Your task to perform on an android device: Open Google Maps and go to "Timeline" Image 0: 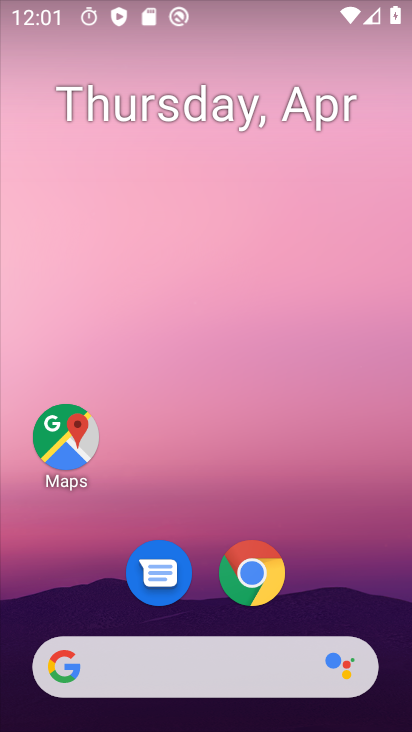
Step 0: click (339, 253)
Your task to perform on an android device: Open Google Maps and go to "Timeline" Image 1: 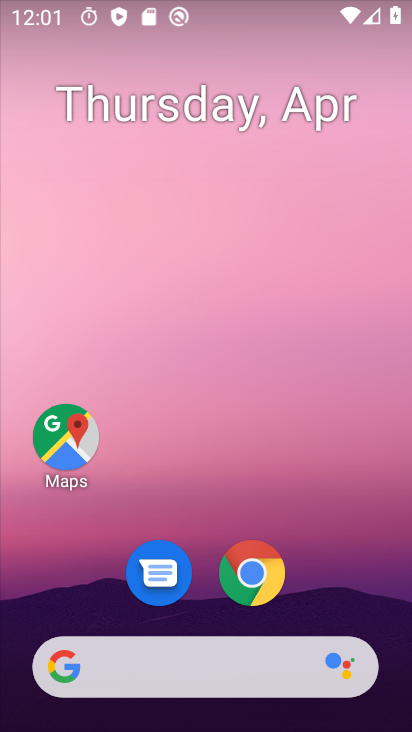
Step 1: click (60, 439)
Your task to perform on an android device: Open Google Maps and go to "Timeline" Image 2: 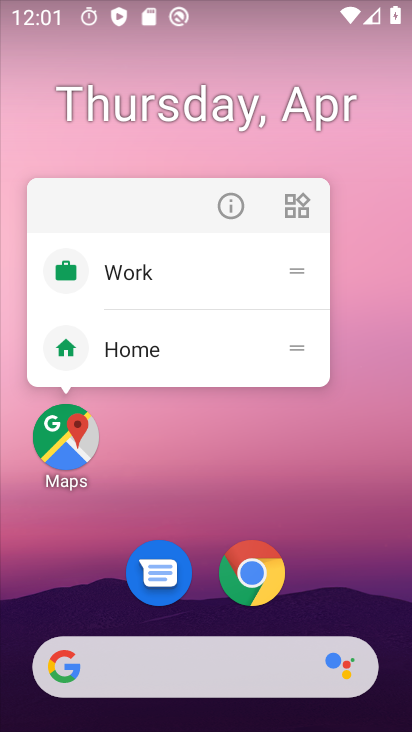
Step 2: click (60, 439)
Your task to perform on an android device: Open Google Maps and go to "Timeline" Image 3: 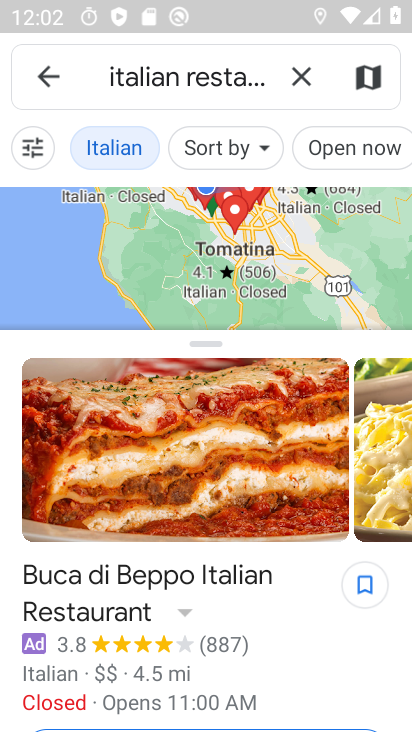
Step 3: click (44, 72)
Your task to perform on an android device: Open Google Maps and go to "Timeline" Image 4: 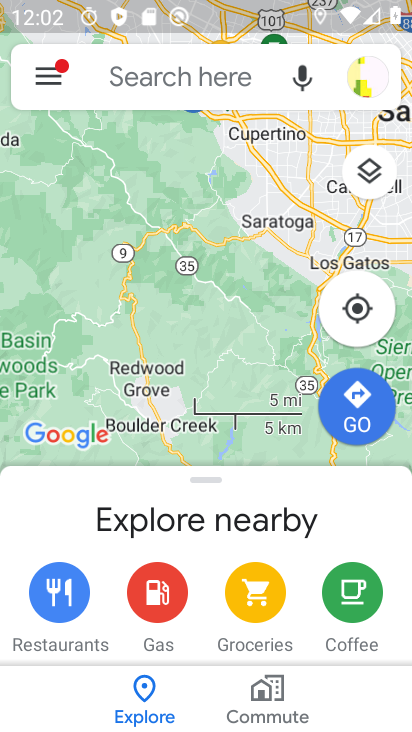
Step 4: click (44, 72)
Your task to perform on an android device: Open Google Maps and go to "Timeline" Image 5: 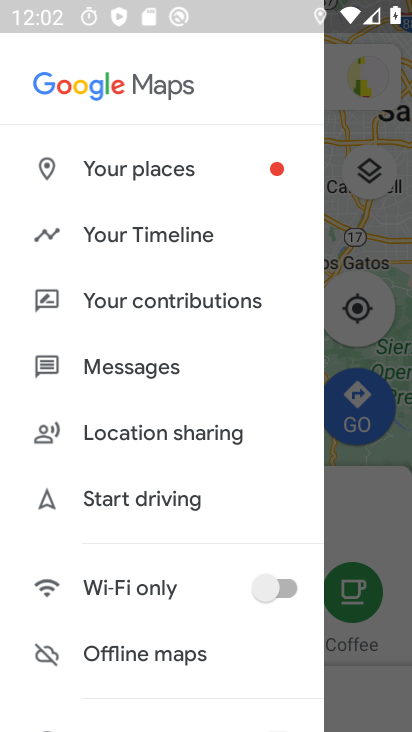
Step 5: click (146, 236)
Your task to perform on an android device: Open Google Maps and go to "Timeline" Image 6: 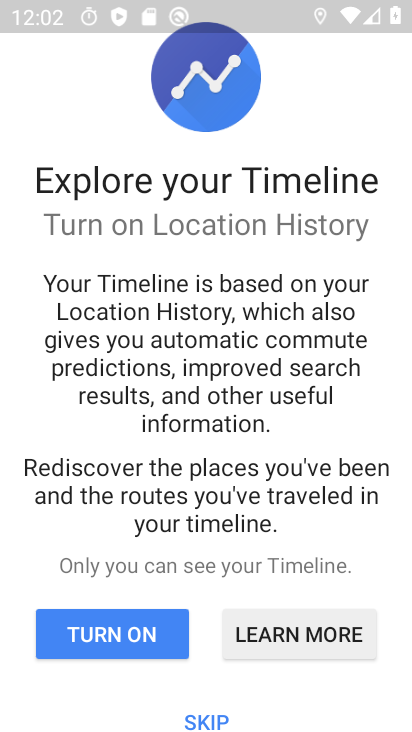
Step 6: click (153, 634)
Your task to perform on an android device: Open Google Maps and go to "Timeline" Image 7: 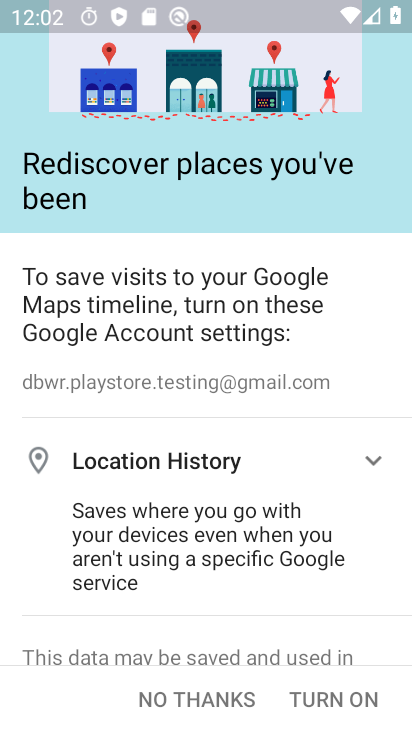
Step 7: click (330, 691)
Your task to perform on an android device: Open Google Maps and go to "Timeline" Image 8: 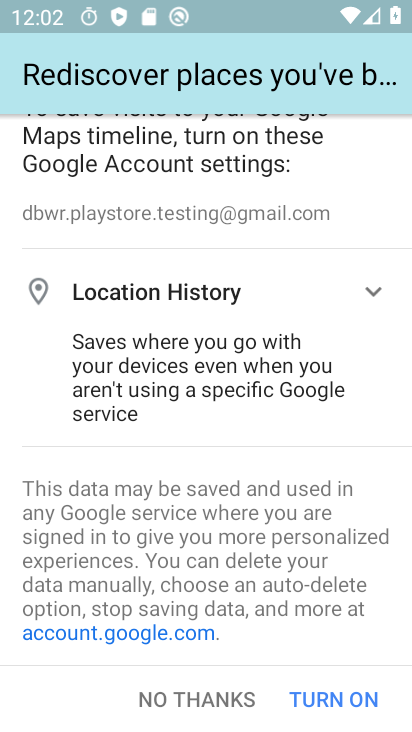
Step 8: click (330, 691)
Your task to perform on an android device: Open Google Maps and go to "Timeline" Image 9: 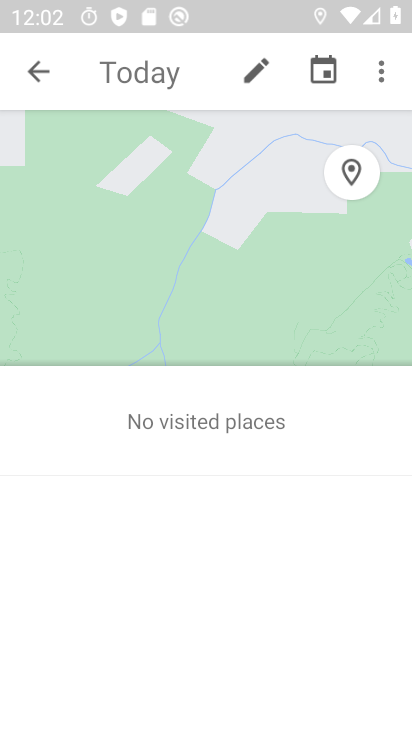
Step 9: task complete